Your task to perform on an android device: turn off translation in the chrome app Image 0: 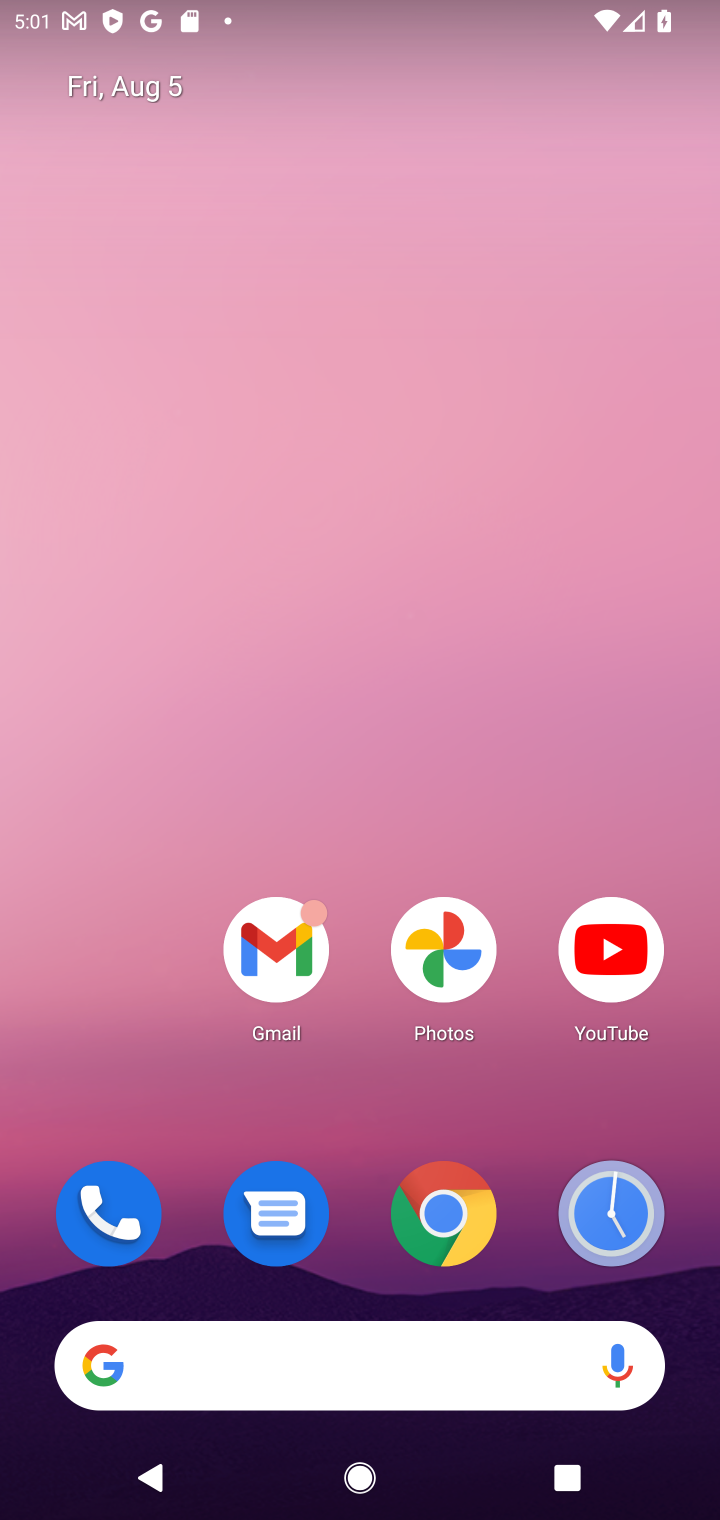
Step 0: click (476, 1218)
Your task to perform on an android device: turn off translation in the chrome app Image 1: 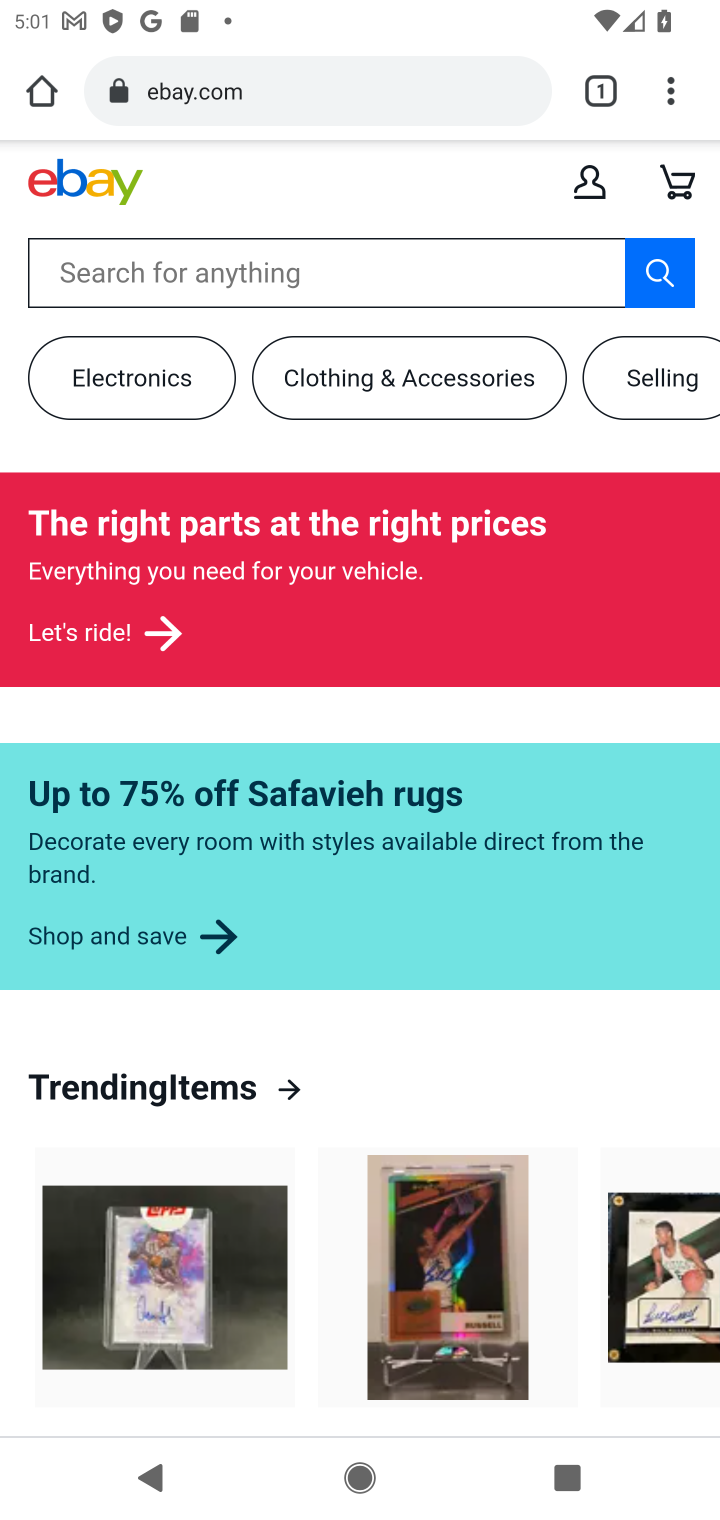
Step 1: click (674, 74)
Your task to perform on an android device: turn off translation in the chrome app Image 2: 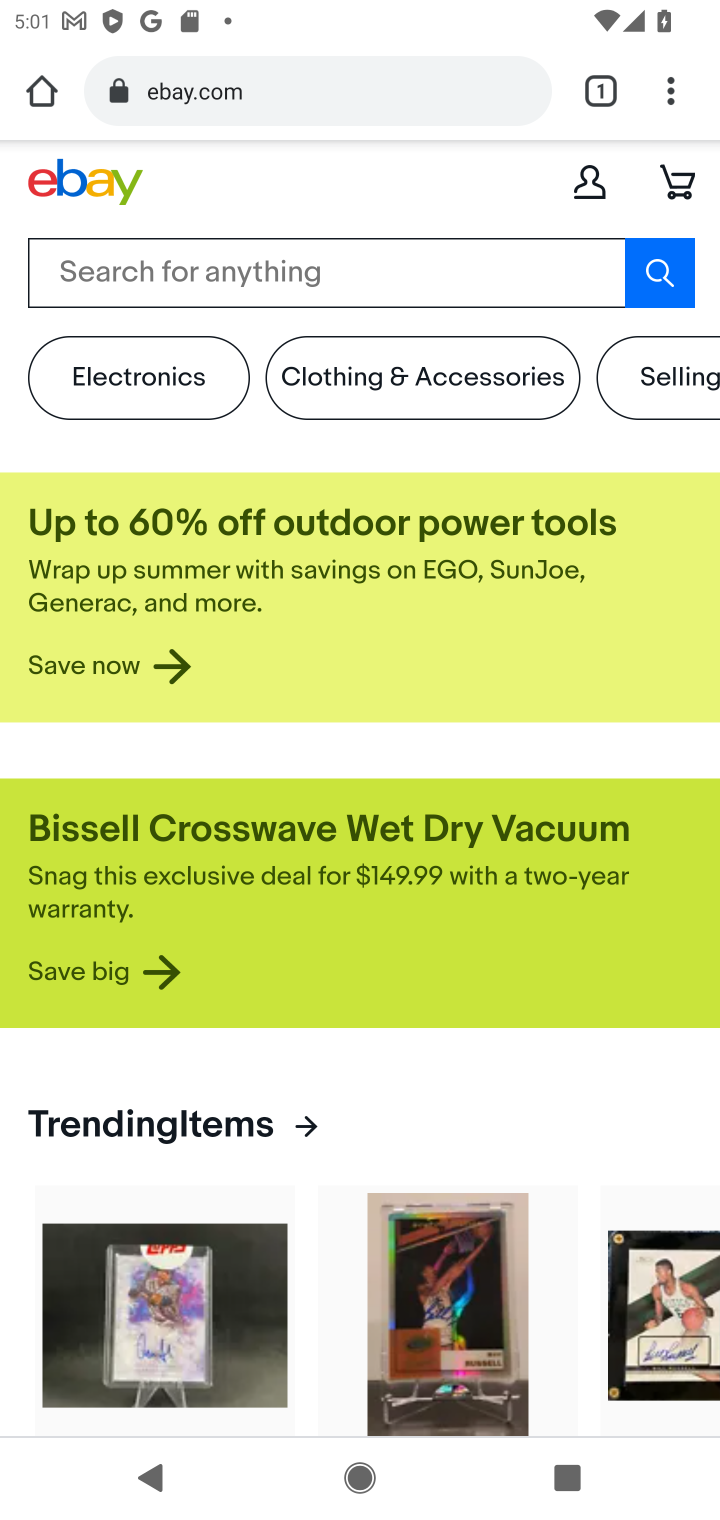
Step 2: task complete